Your task to perform on an android device: toggle pop-ups in chrome Image 0: 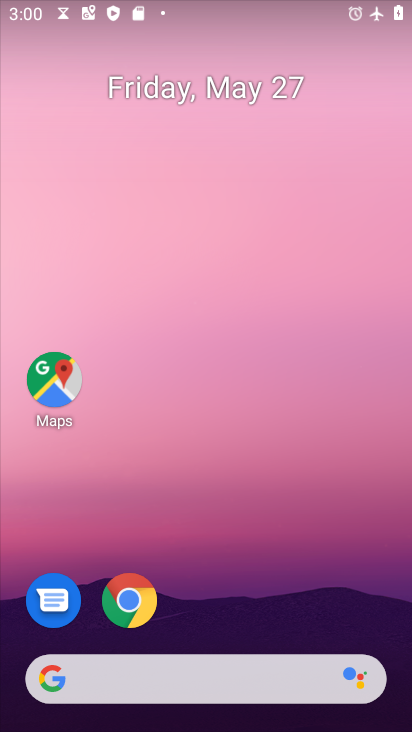
Step 0: drag from (236, 535) to (162, 4)
Your task to perform on an android device: toggle pop-ups in chrome Image 1: 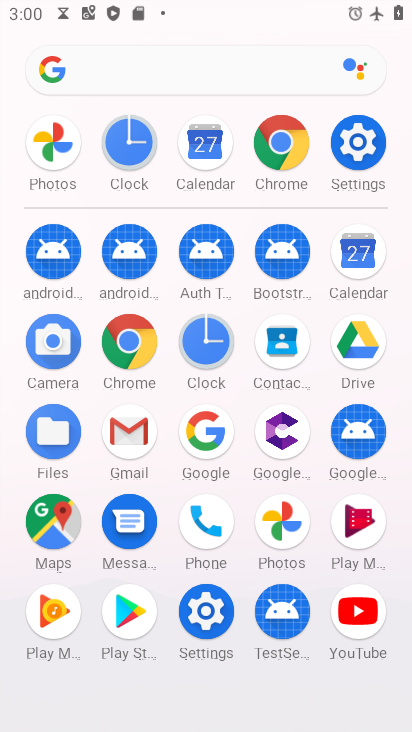
Step 1: drag from (0, 518) to (24, 218)
Your task to perform on an android device: toggle pop-ups in chrome Image 2: 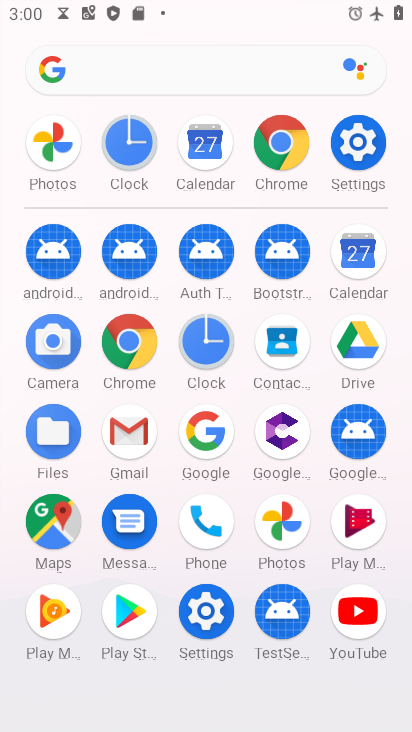
Step 2: click (129, 335)
Your task to perform on an android device: toggle pop-ups in chrome Image 3: 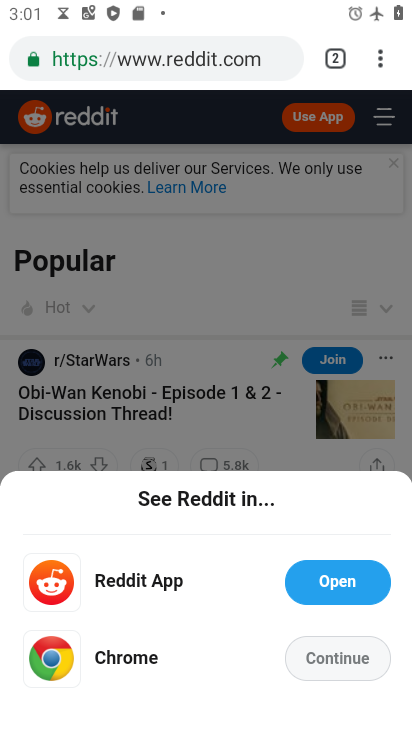
Step 3: drag from (381, 54) to (221, 621)
Your task to perform on an android device: toggle pop-ups in chrome Image 4: 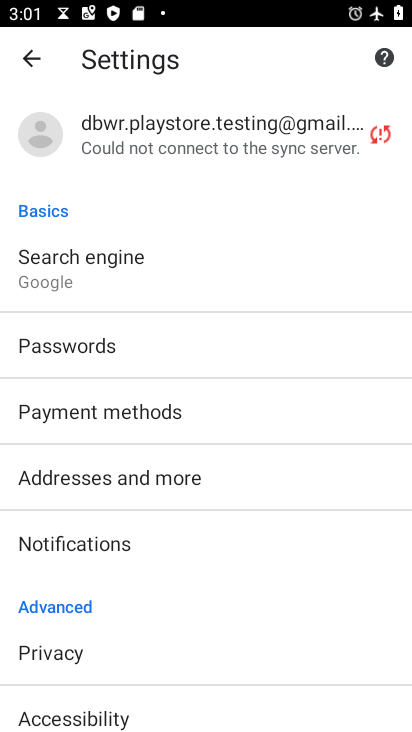
Step 4: drag from (275, 590) to (272, 240)
Your task to perform on an android device: toggle pop-ups in chrome Image 5: 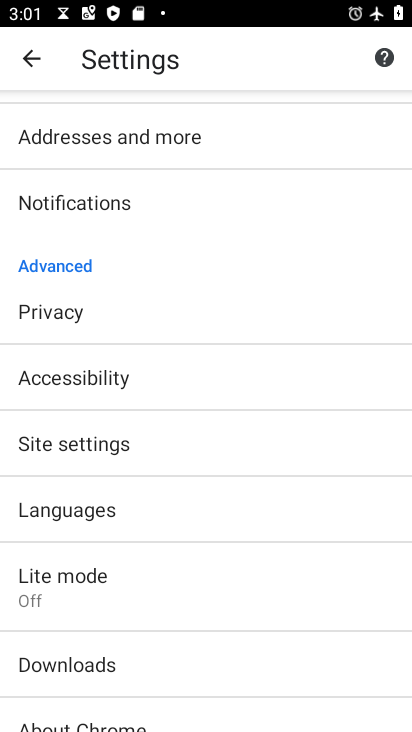
Step 5: drag from (174, 642) to (236, 381)
Your task to perform on an android device: toggle pop-ups in chrome Image 6: 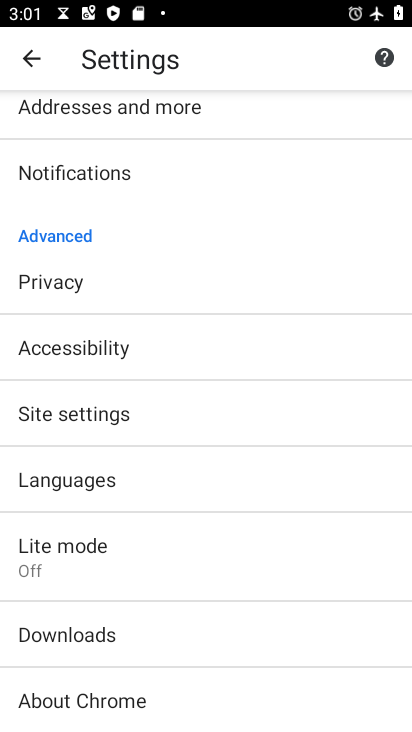
Step 6: click (97, 415)
Your task to perform on an android device: toggle pop-ups in chrome Image 7: 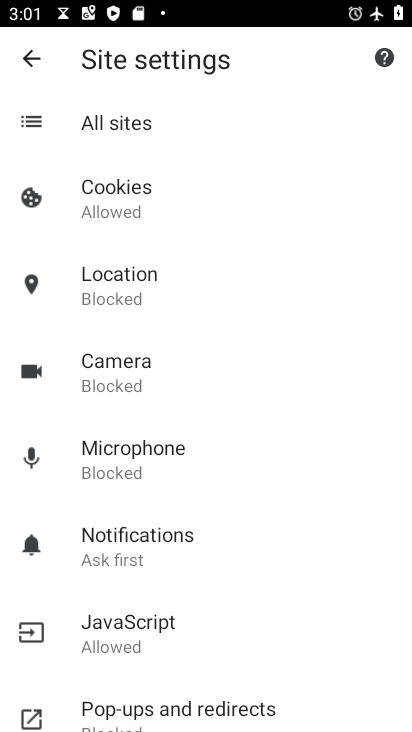
Step 7: drag from (323, 617) to (305, 172)
Your task to perform on an android device: toggle pop-ups in chrome Image 8: 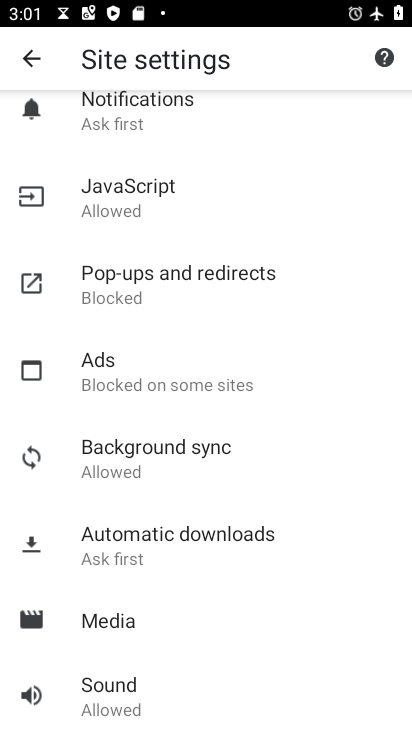
Step 8: click (160, 283)
Your task to perform on an android device: toggle pop-ups in chrome Image 9: 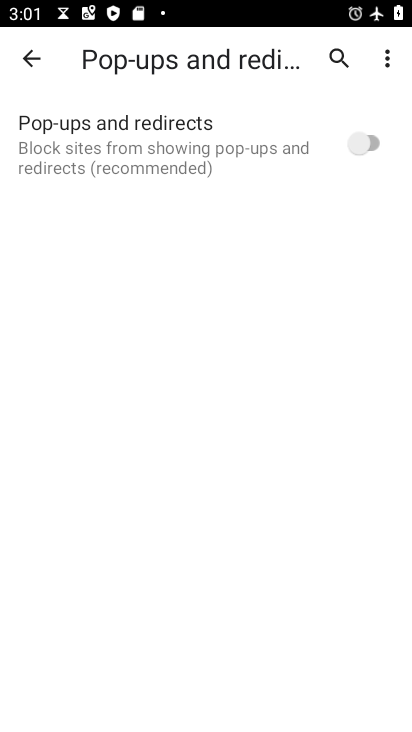
Step 9: click (373, 145)
Your task to perform on an android device: toggle pop-ups in chrome Image 10: 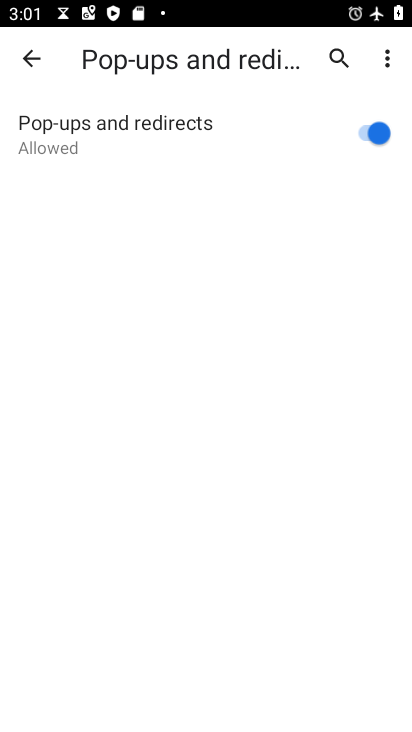
Step 10: task complete